Your task to perform on an android device: toggle notification dots Image 0: 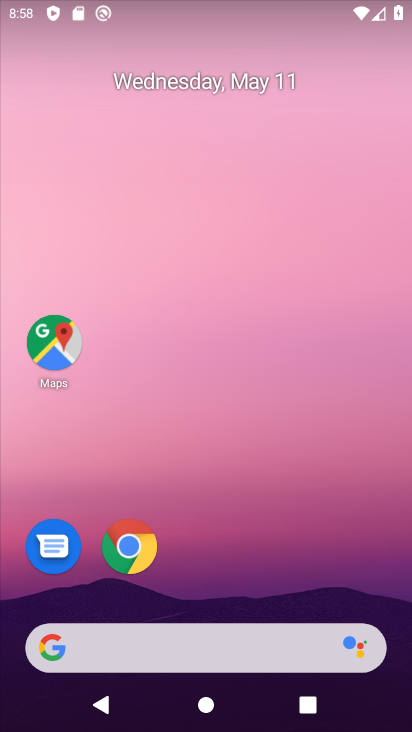
Step 0: drag from (348, 533) to (283, 179)
Your task to perform on an android device: toggle notification dots Image 1: 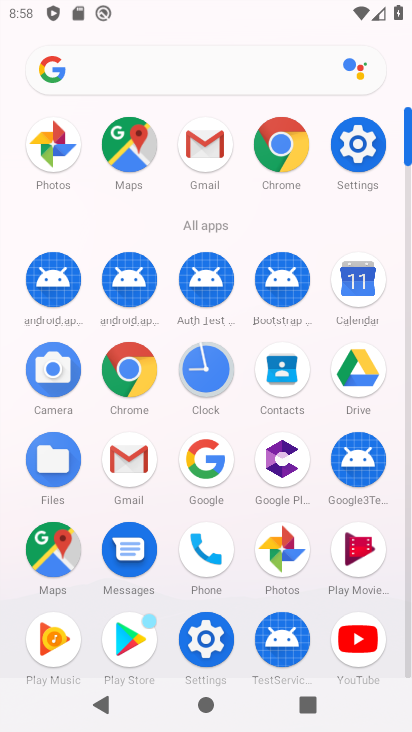
Step 1: click (366, 166)
Your task to perform on an android device: toggle notification dots Image 2: 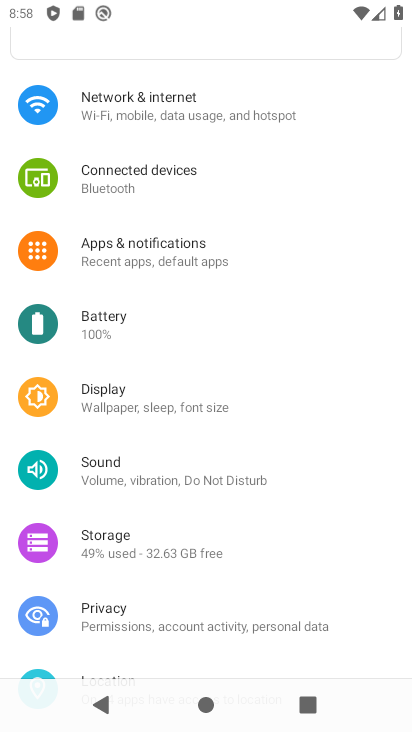
Step 2: click (147, 262)
Your task to perform on an android device: toggle notification dots Image 3: 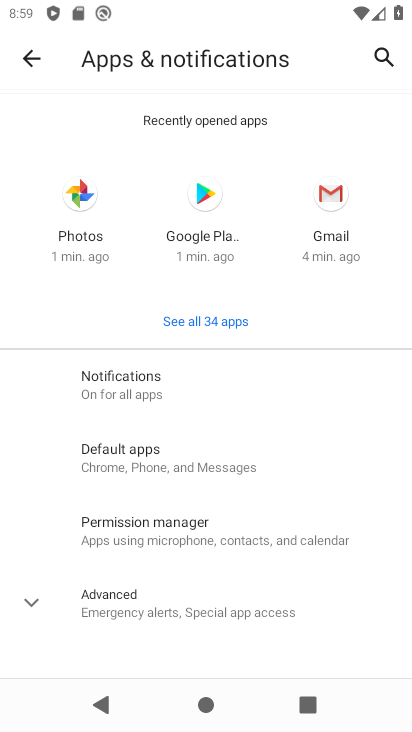
Step 3: click (190, 387)
Your task to perform on an android device: toggle notification dots Image 4: 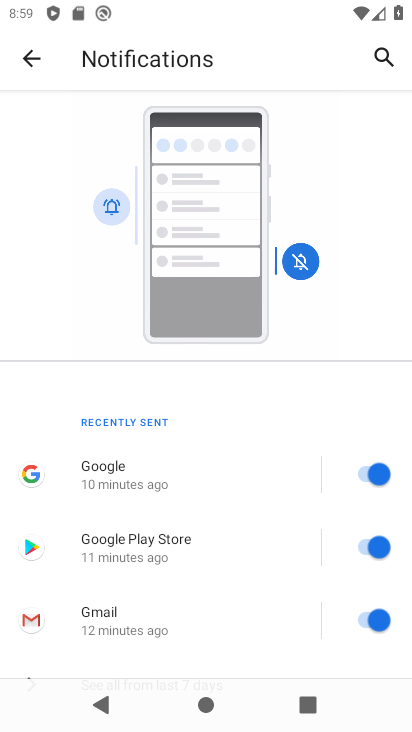
Step 4: drag from (271, 610) to (212, 403)
Your task to perform on an android device: toggle notification dots Image 5: 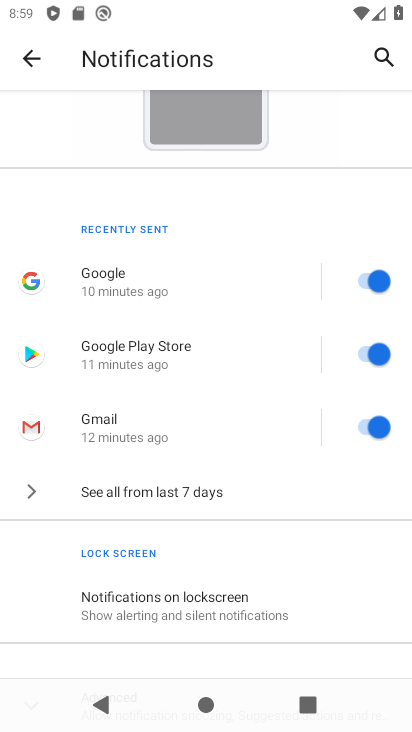
Step 5: drag from (251, 555) to (219, 422)
Your task to perform on an android device: toggle notification dots Image 6: 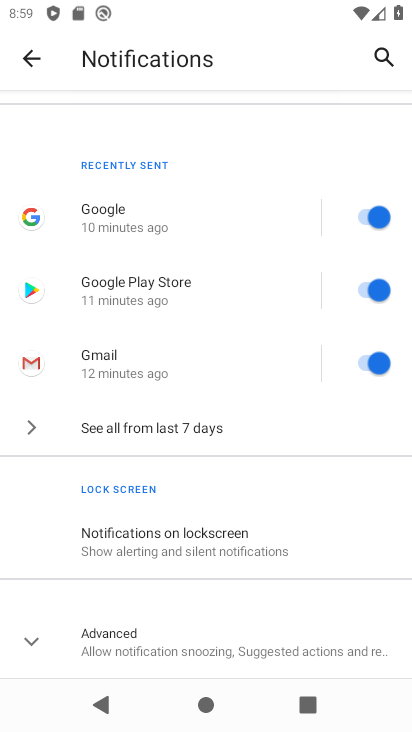
Step 6: click (174, 648)
Your task to perform on an android device: toggle notification dots Image 7: 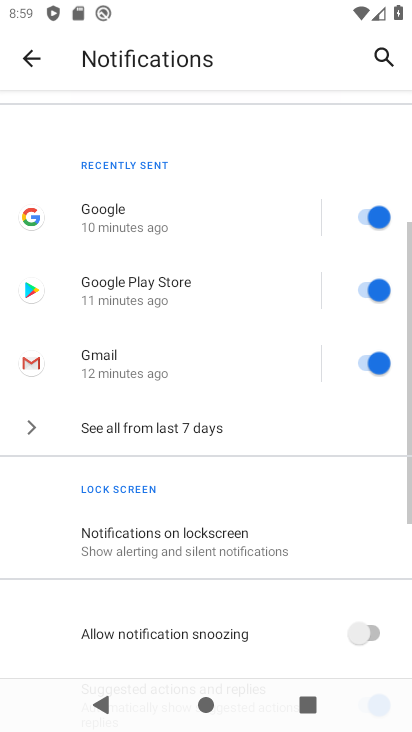
Step 7: drag from (260, 639) to (196, 438)
Your task to perform on an android device: toggle notification dots Image 8: 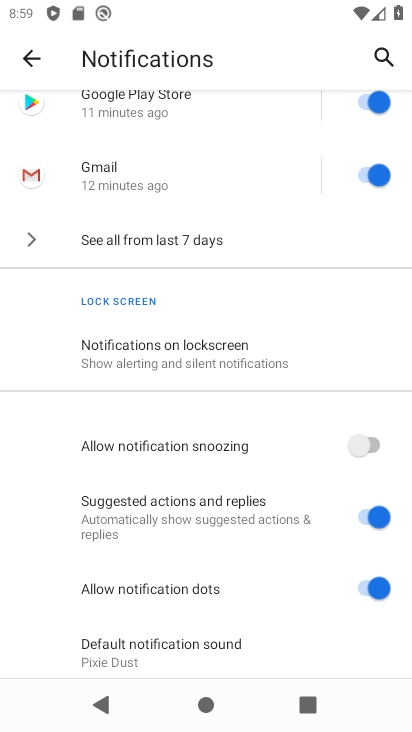
Step 8: click (382, 590)
Your task to perform on an android device: toggle notification dots Image 9: 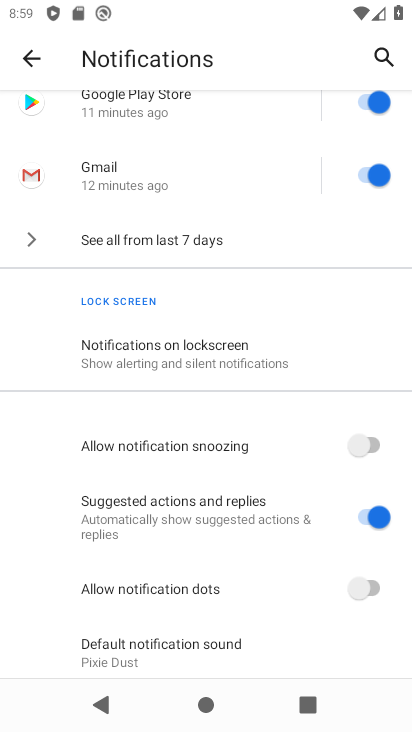
Step 9: task complete